Your task to perform on an android device: search for starred emails in the gmail app Image 0: 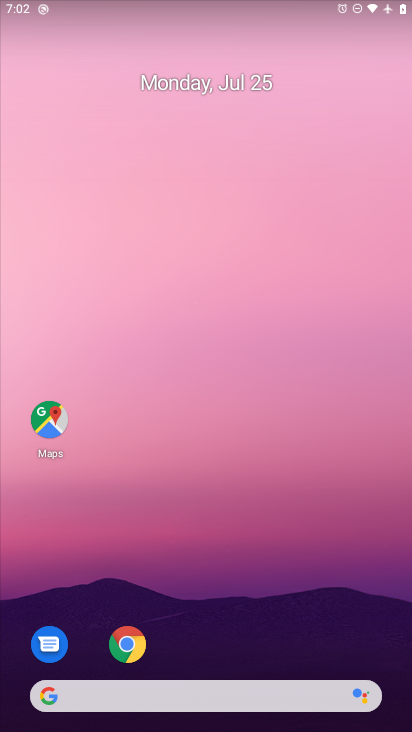
Step 0: press home button
Your task to perform on an android device: search for starred emails in the gmail app Image 1: 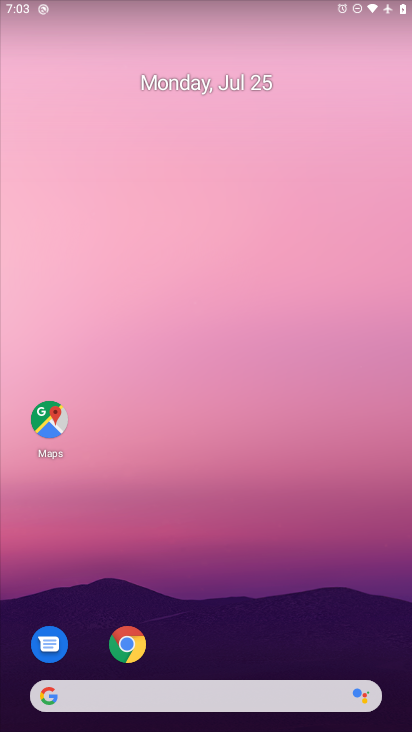
Step 1: drag from (262, 647) to (343, 209)
Your task to perform on an android device: search for starred emails in the gmail app Image 2: 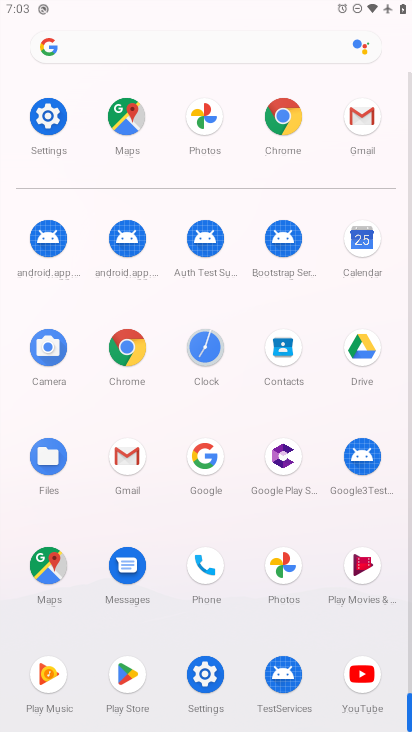
Step 2: click (360, 112)
Your task to perform on an android device: search for starred emails in the gmail app Image 3: 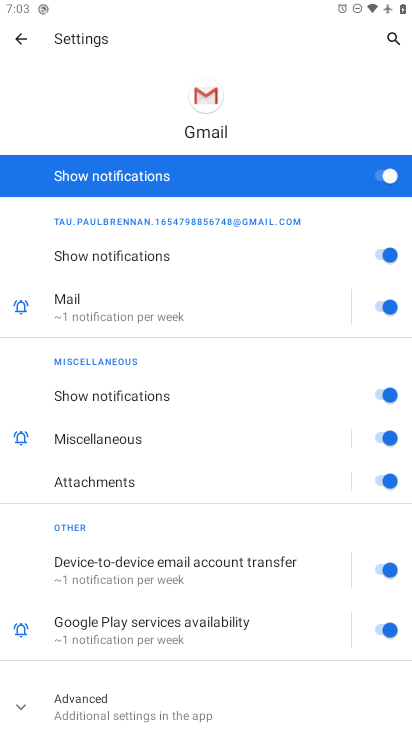
Step 3: click (22, 40)
Your task to perform on an android device: search for starred emails in the gmail app Image 4: 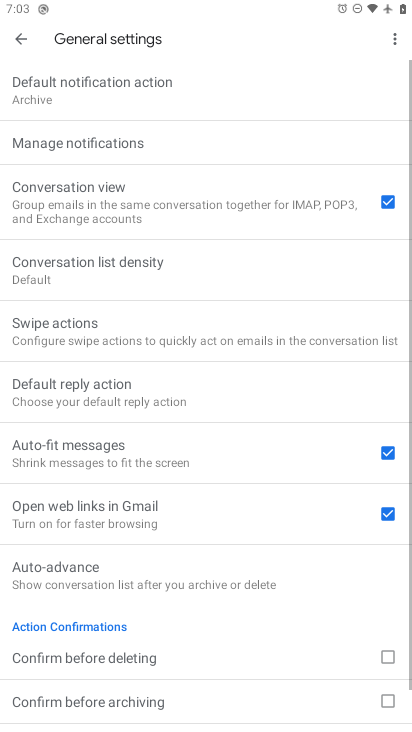
Step 4: click (25, 42)
Your task to perform on an android device: search for starred emails in the gmail app Image 5: 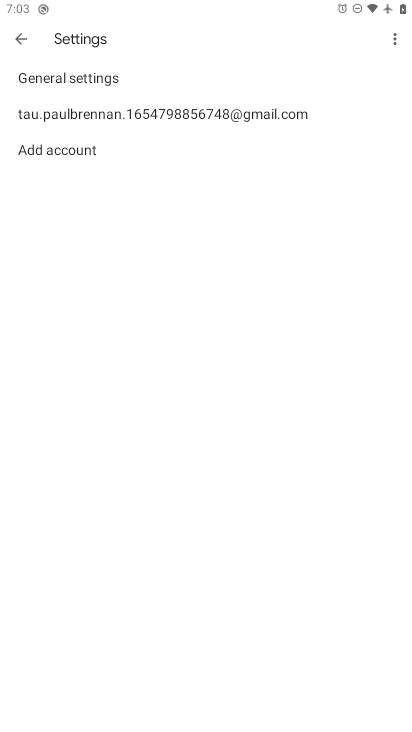
Step 5: click (25, 42)
Your task to perform on an android device: search for starred emails in the gmail app Image 6: 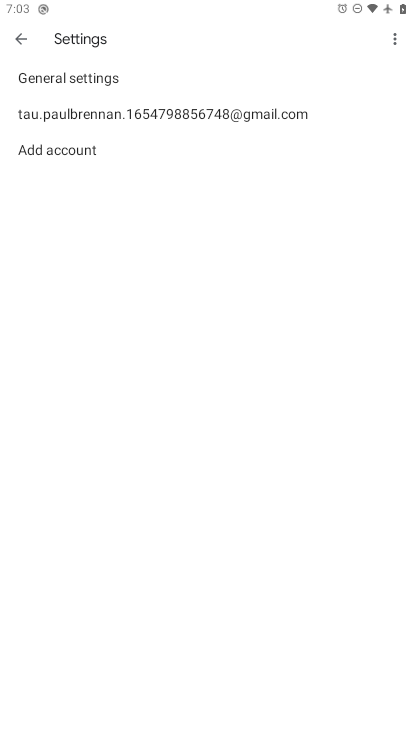
Step 6: click (16, 35)
Your task to perform on an android device: search for starred emails in the gmail app Image 7: 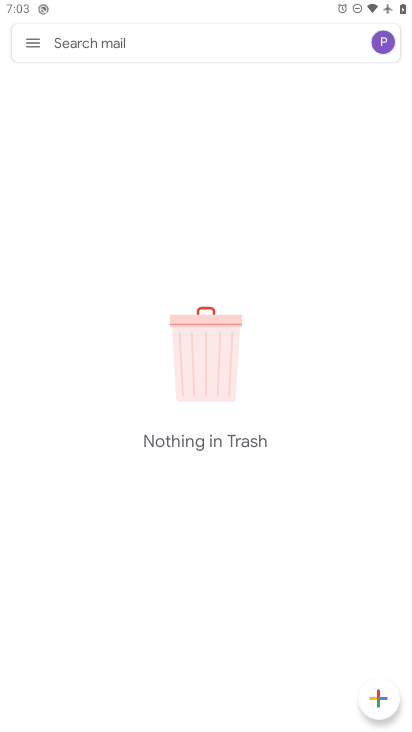
Step 7: click (34, 43)
Your task to perform on an android device: search for starred emails in the gmail app Image 8: 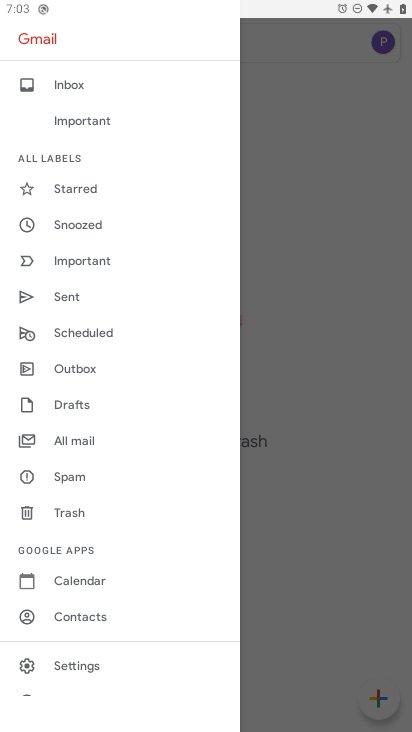
Step 8: click (69, 193)
Your task to perform on an android device: search for starred emails in the gmail app Image 9: 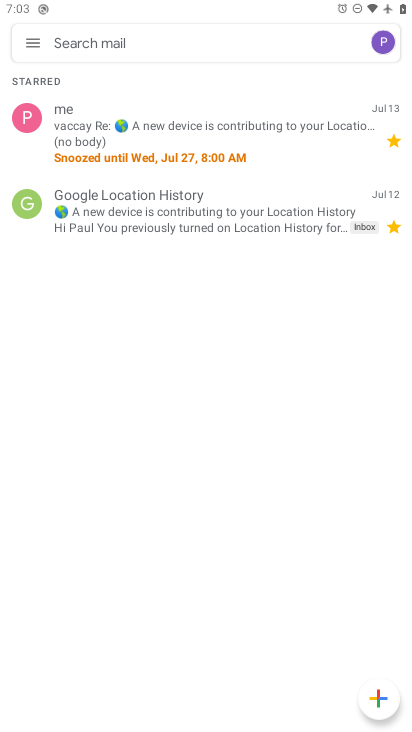
Step 9: task complete